Your task to perform on an android device: snooze an email in the gmail app Image 0: 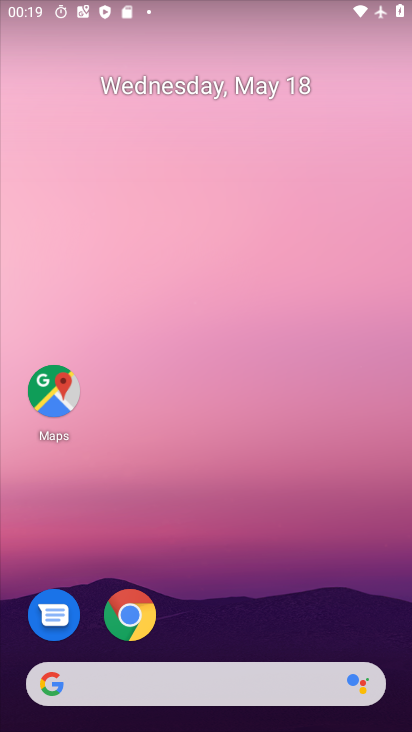
Step 0: drag from (226, 629) to (223, 233)
Your task to perform on an android device: snooze an email in the gmail app Image 1: 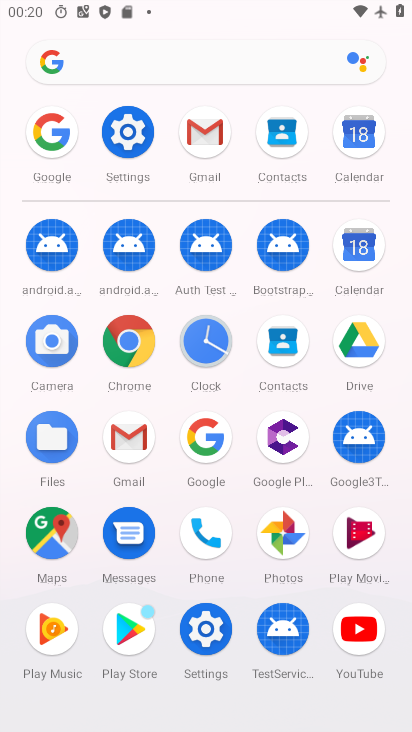
Step 1: click (215, 139)
Your task to perform on an android device: snooze an email in the gmail app Image 2: 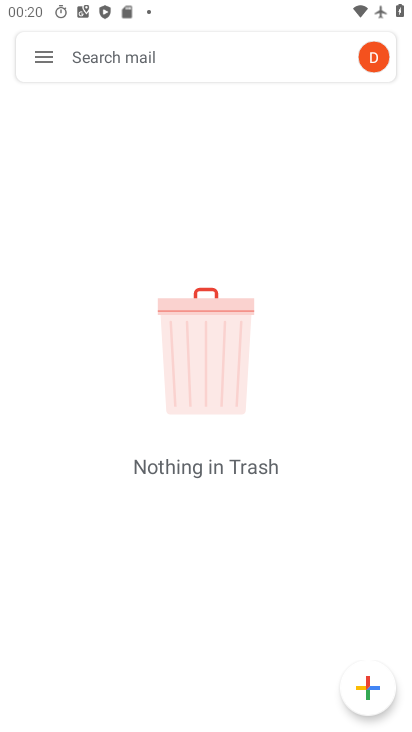
Step 2: click (35, 67)
Your task to perform on an android device: snooze an email in the gmail app Image 3: 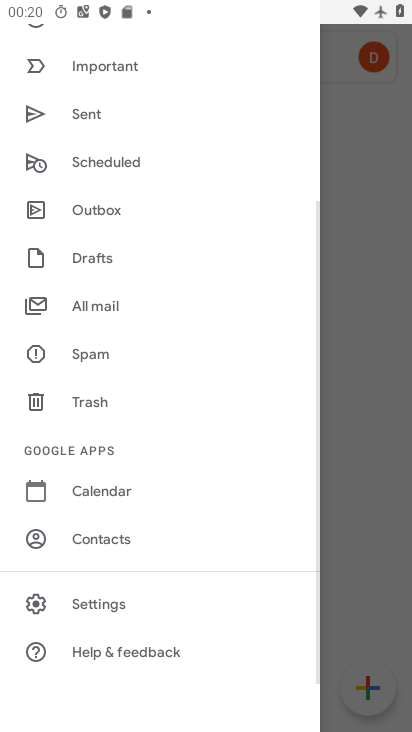
Step 3: drag from (116, 173) to (155, 456)
Your task to perform on an android device: snooze an email in the gmail app Image 4: 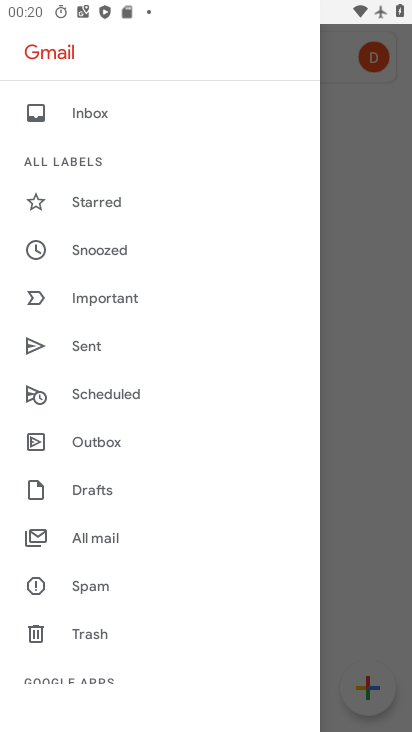
Step 4: drag from (138, 167) to (180, 460)
Your task to perform on an android device: snooze an email in the gmail app Image 5: 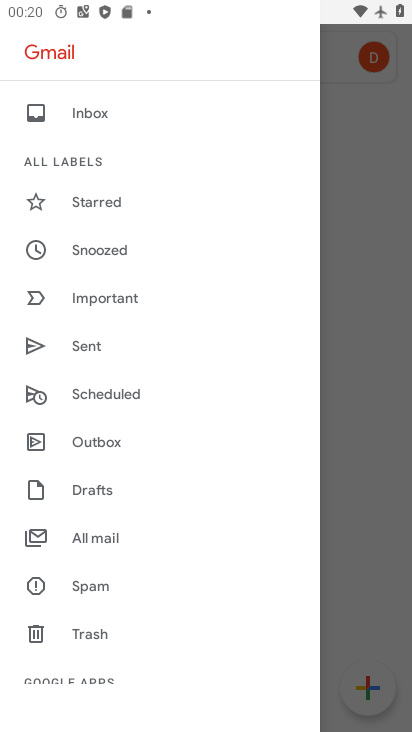
Step 5: click (121, 531)
Your task to perform on an android device: snooze an email in the gmail app Image 6: 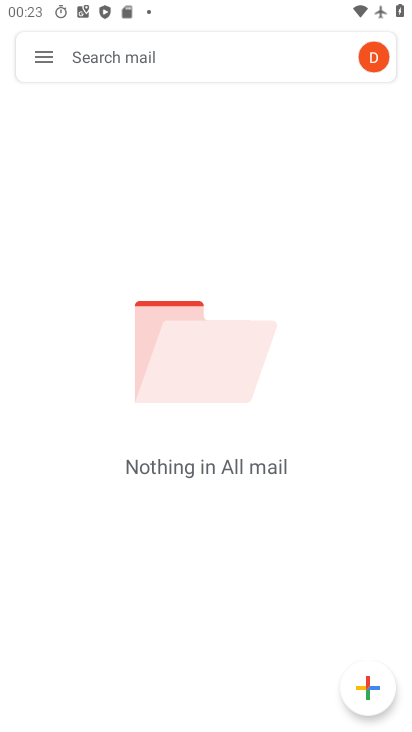
Step 6: task complete